Your task to perform on an android device: turn off sleep mode Image 0: 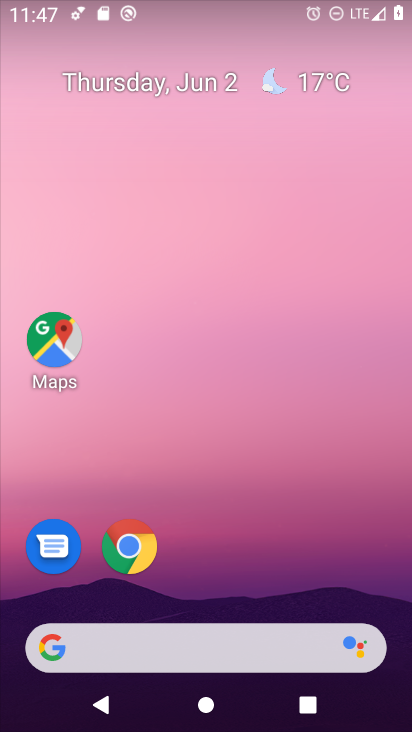
Step 0: drag from (241, 471) to (172, 41)
Your task to perform on an android device: turn off sleep mode Image 1: 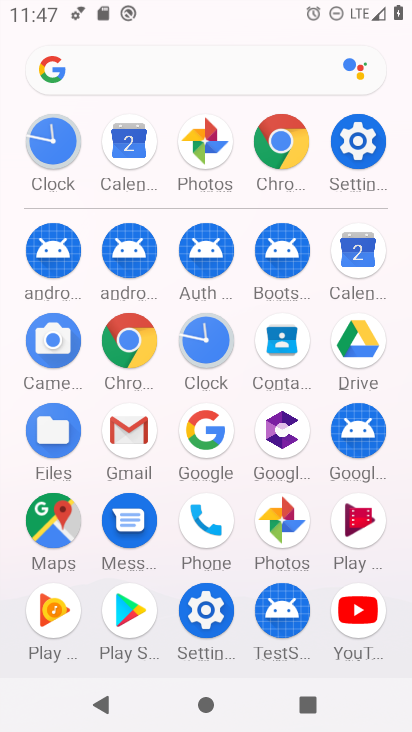
Step 1: drag from (7, 576) to (29, 295)
Your task to perform on an android device: turn off sleep mode Image 2: 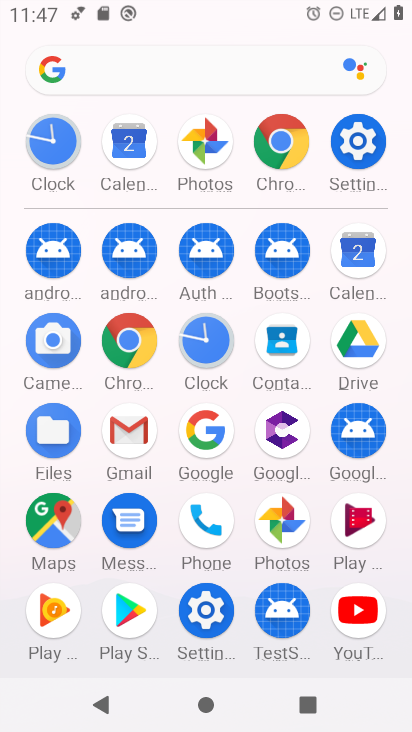
Step 2: click (202, 606)
Your task to perform on an android device: turn off sleep mode Image 3: 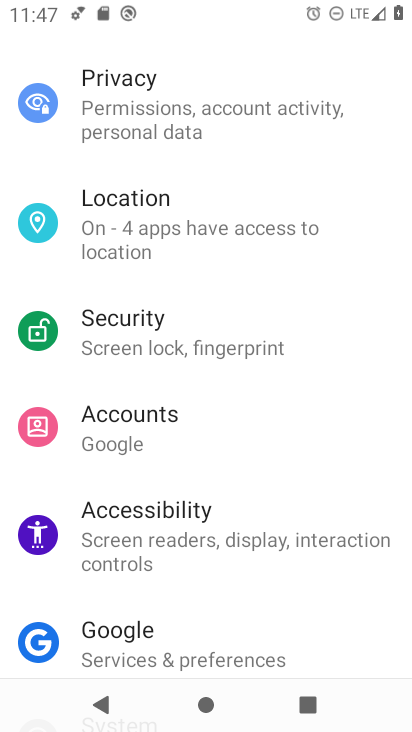
Step 3: drag from (306, 155) to (303, 604)
Your task to perform on an android device: turn off sleep mode Image 4: 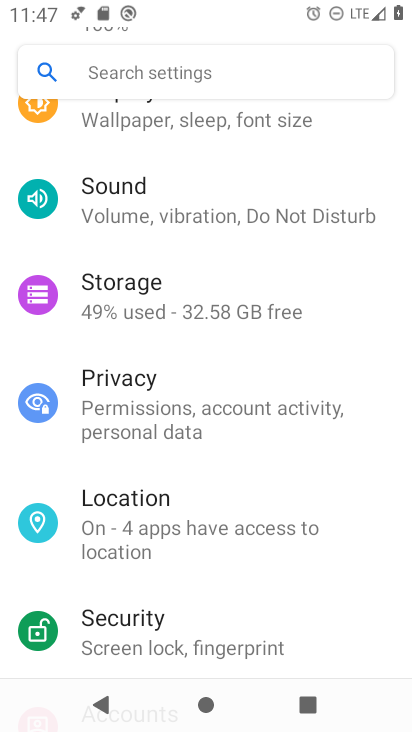
Step 4: drag from (314, 171) to (294, 566)
Your task to perform on an android device: turn off sleep mode Image 5: 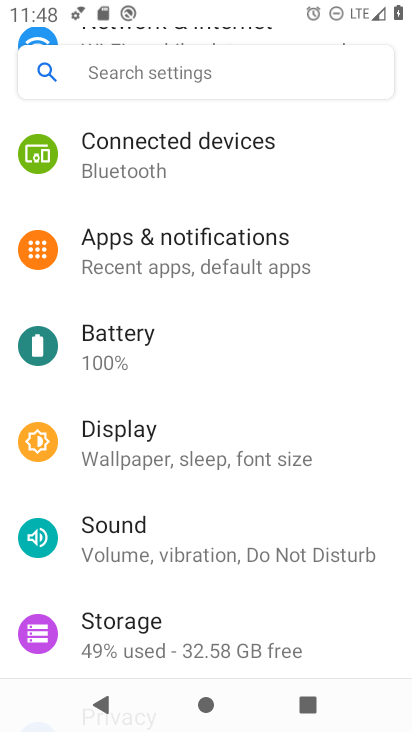
Step 5: click (266, 442)
Your task to perform on an android device: turn off sleep mode Image 6: 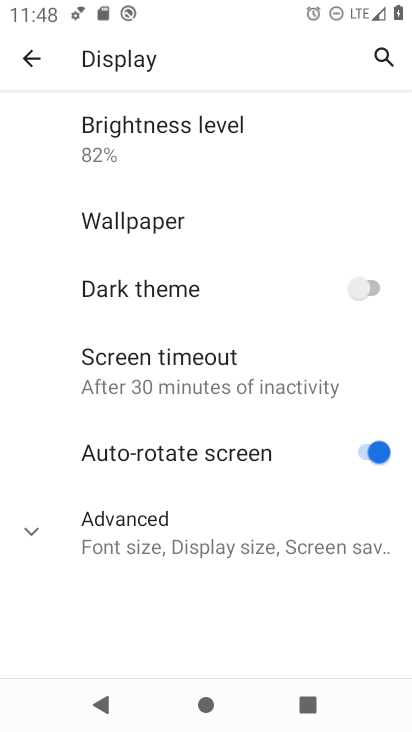
Step 6: click (31, 526)
Your task to perform on an android device: turn off sleep mode Image 7: 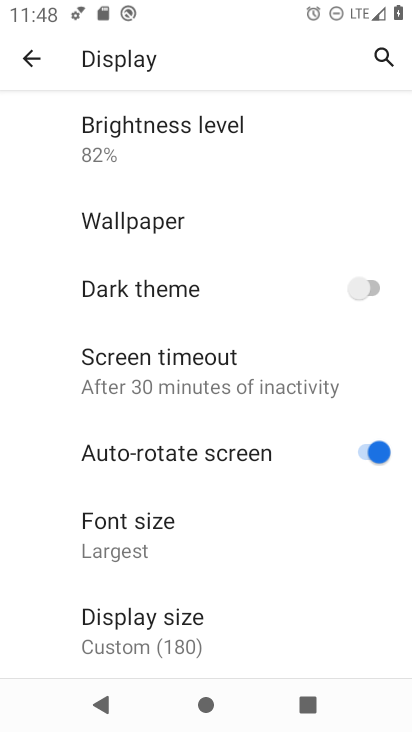
Step 7: task complete